Your task to perform on an android device: turn off wifi Image 0: 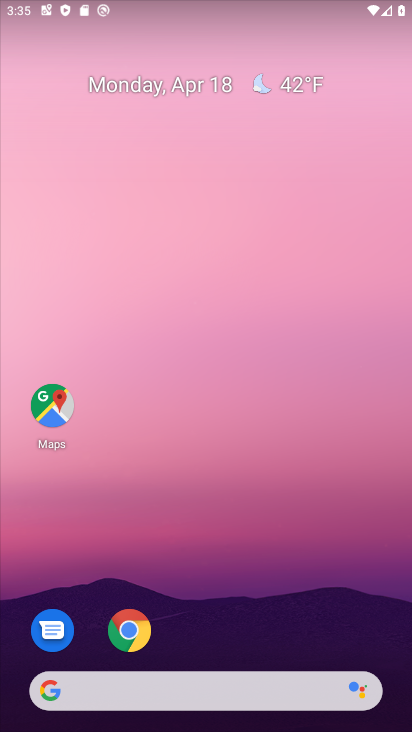
Step 0: drag from (265, 5) to (277, 397)
Your task to perform on an android device: turn off wifi Image 1: 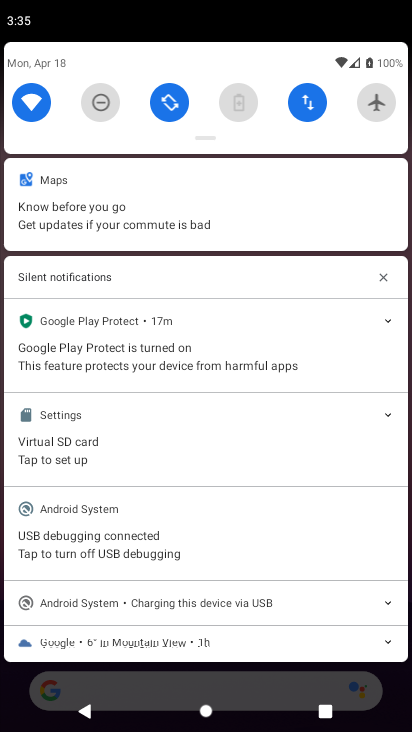
Step 1: click (32, 101)
Your task to perform on an android device: turn off wifi Image 2: 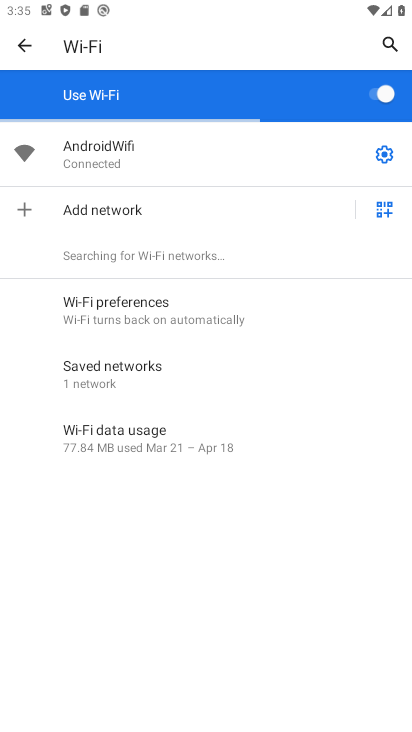
Step 2: task complete